Your task to perform on an android device: Add "sony triple a" to the cart on target.com, then select checkout. Image 0: 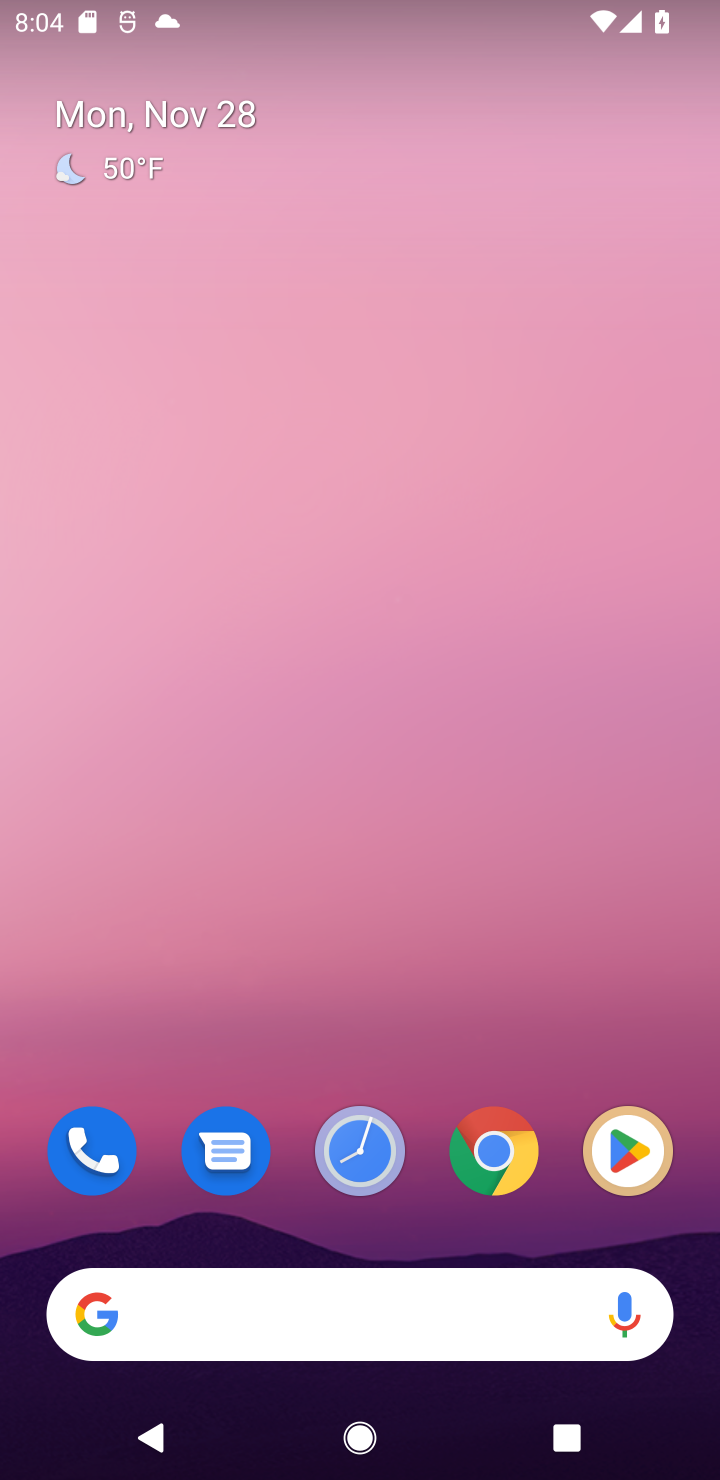
Step 0: click (383, 1291)
Your task to perform on an android device: Add "sony triple a" to the cart on target.com, then select checkout. Image 1: 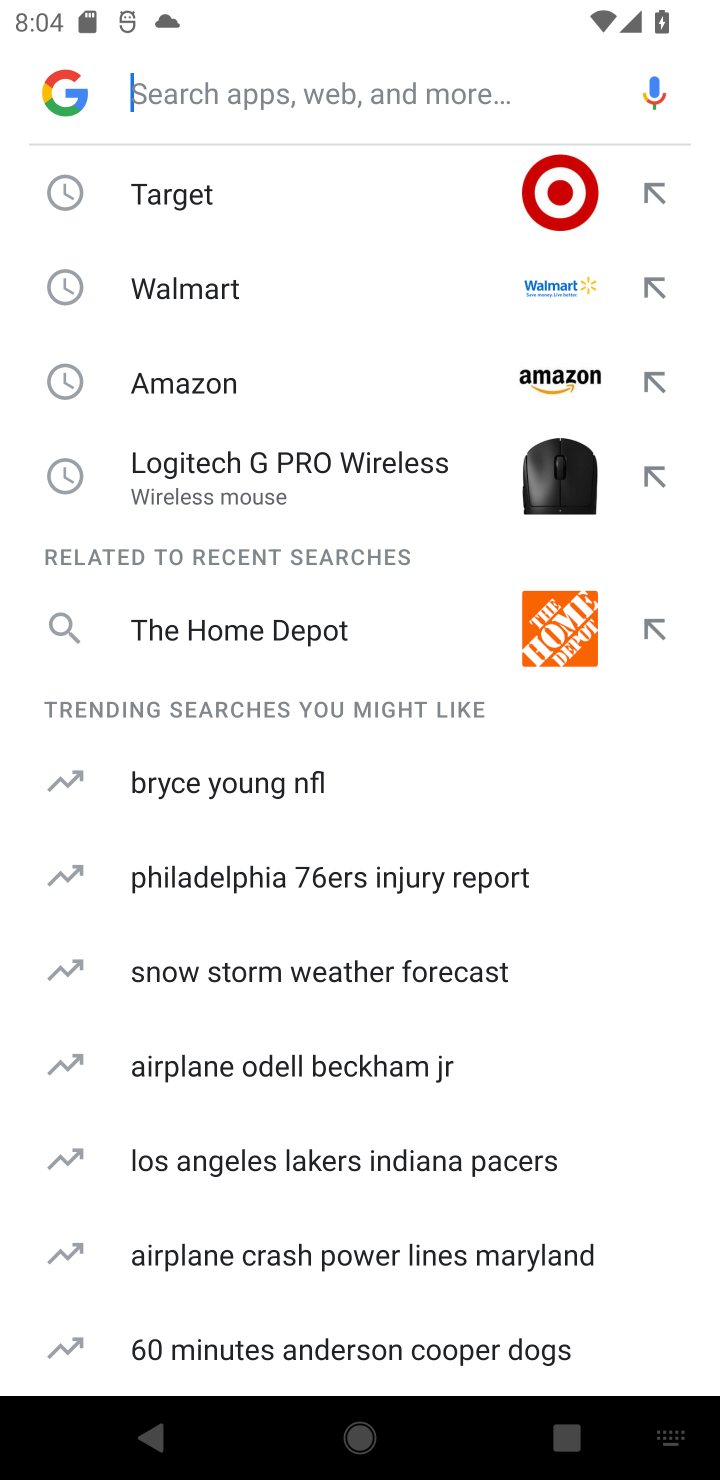
Step 1: type "sony triple a"
Your task to perform on an android device: Add "sony triple a" to the cart on target.com, then select checkout. Image 2: 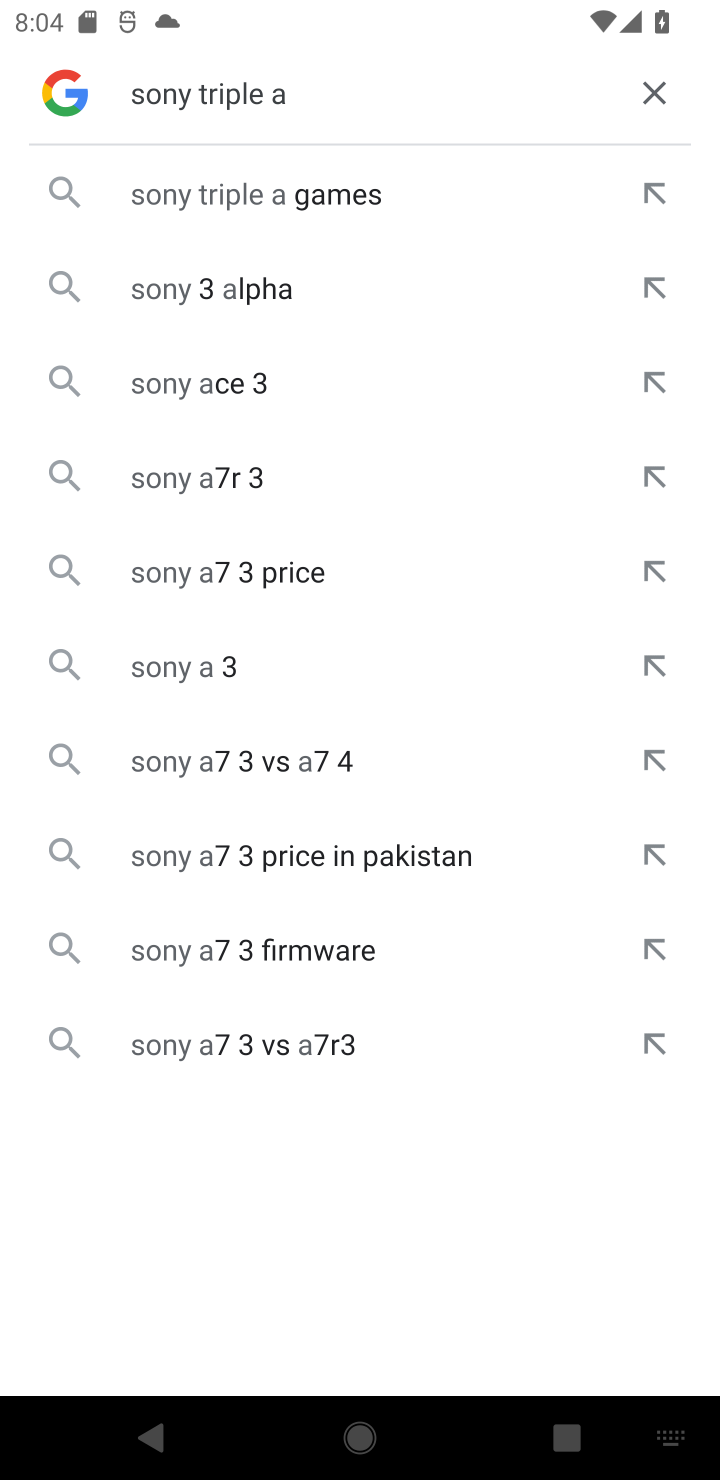
Step 2: click (147, 213)
Your task to perform on an android device: Add "sony triple a" to the cart on target.com, then select checkout. Image 3: 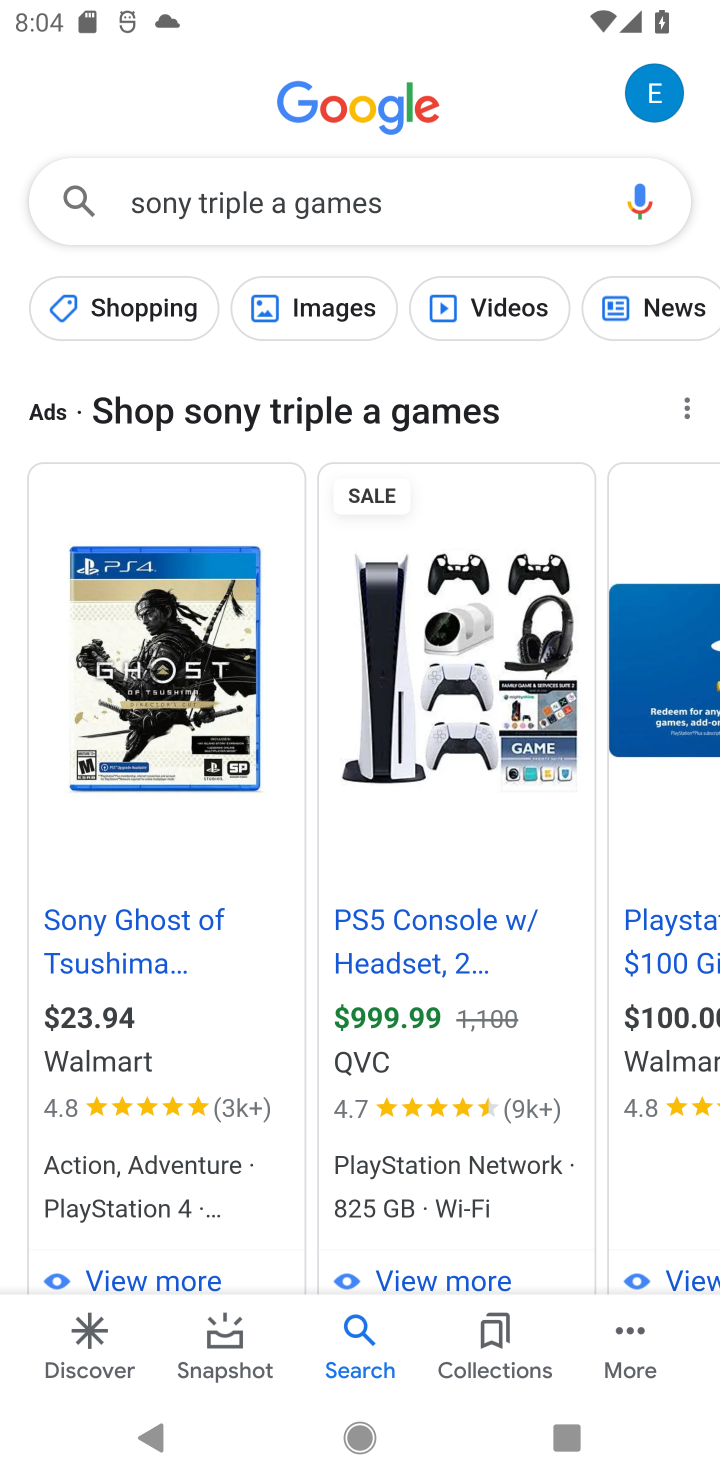
Step 3: task complete